Your task to perform on an android device: change keyboard looks Image 0: 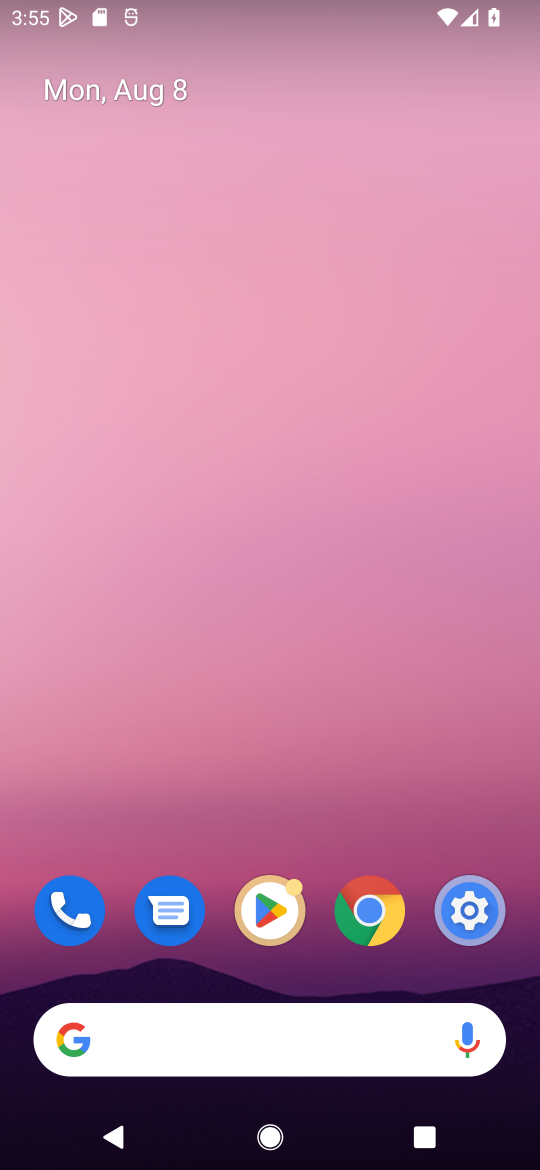
Step 0: click (453, 916)
Your task to perform on an android device: change keyboard looks Image 1: 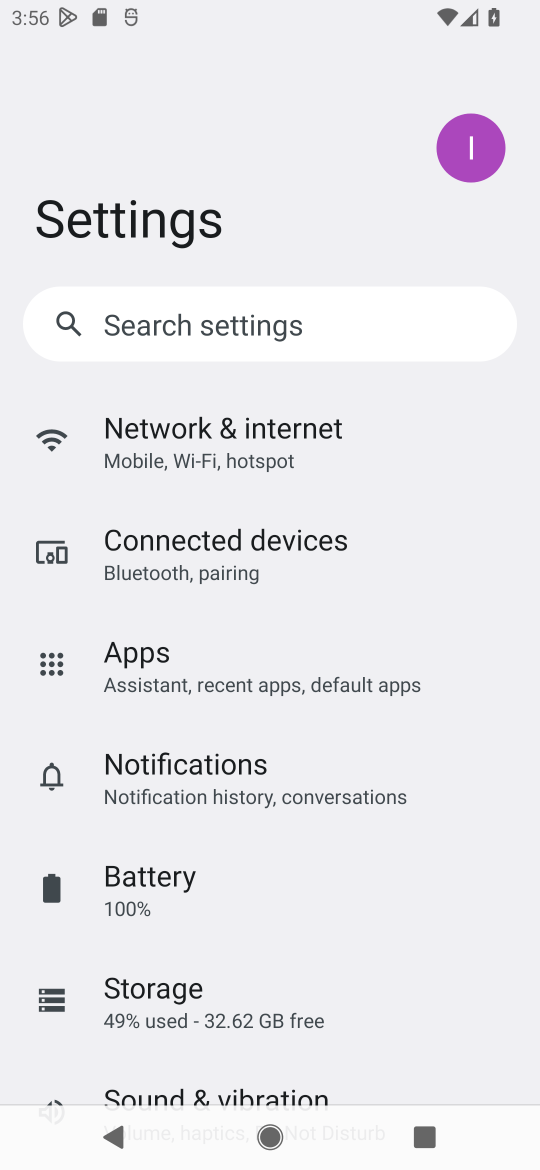
Step 1: drag from (474, 926) to (427, 313)
Your task to perform on an android device: change keyboard looks Image 2: 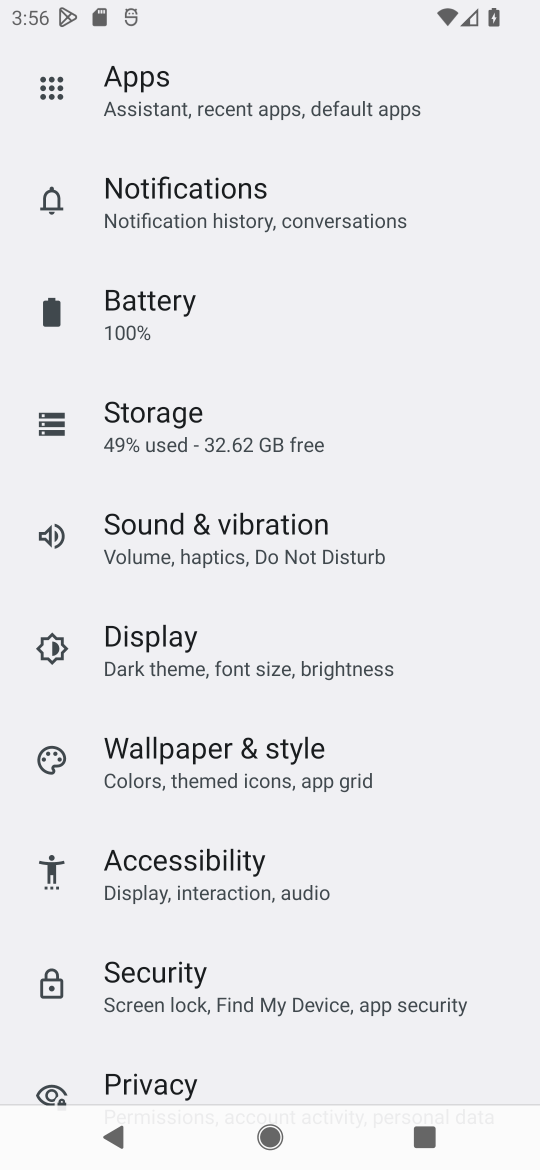
Step 2: drag from (441, 919) to (411, 633)
Your task to perform on an android device: change keyboard looks Image 3: 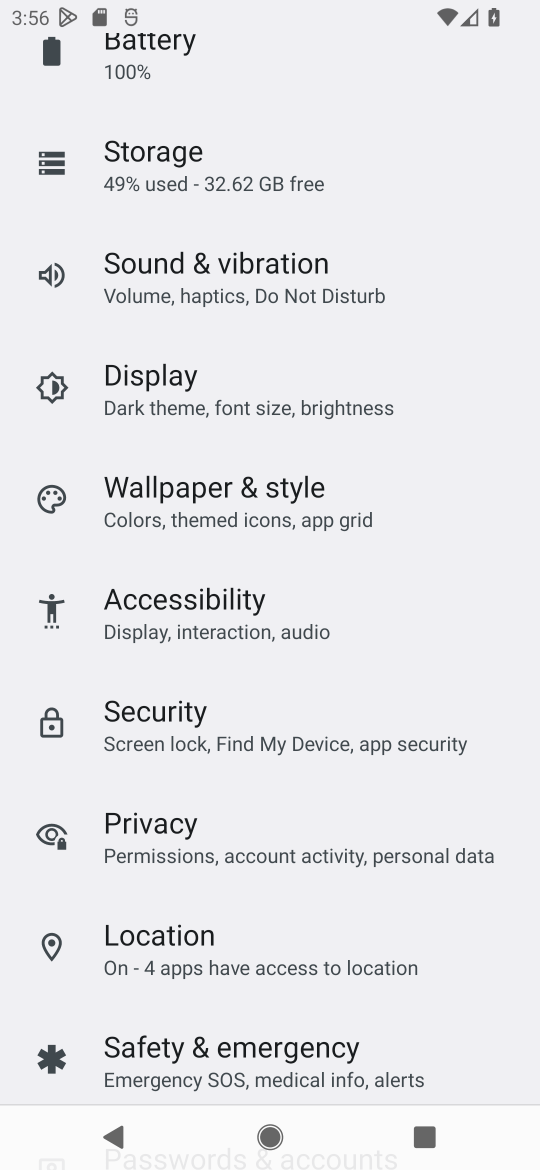
Step 3: drag from (492, 257) to (380, 941)
Your task to perform on an android device: change keyboard looks Image 4: 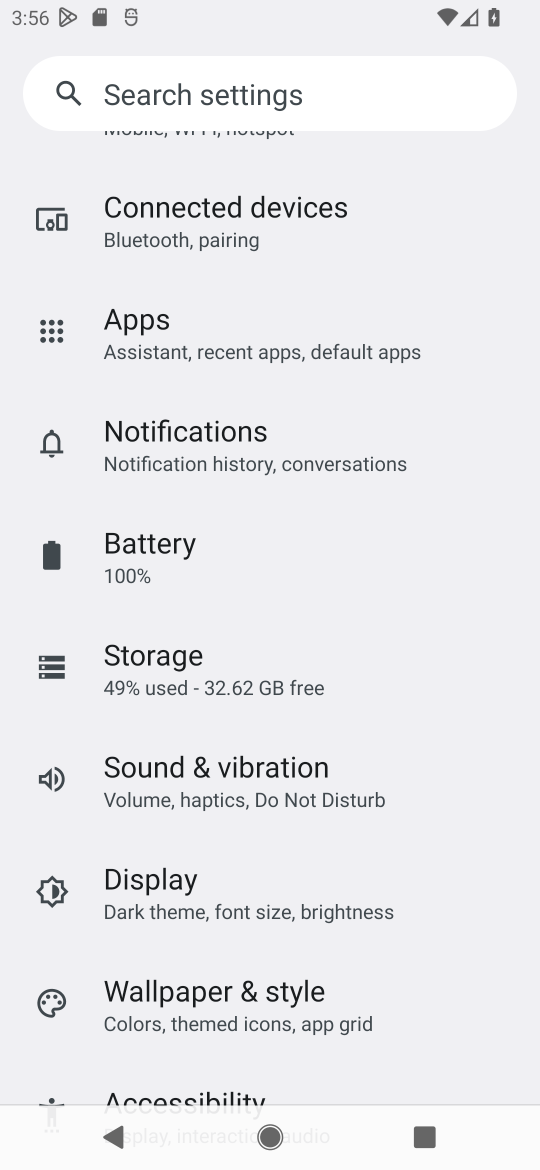
Step 4: click (196, 99)
Your task to perform on an android device: change keyboard looks Image 5: 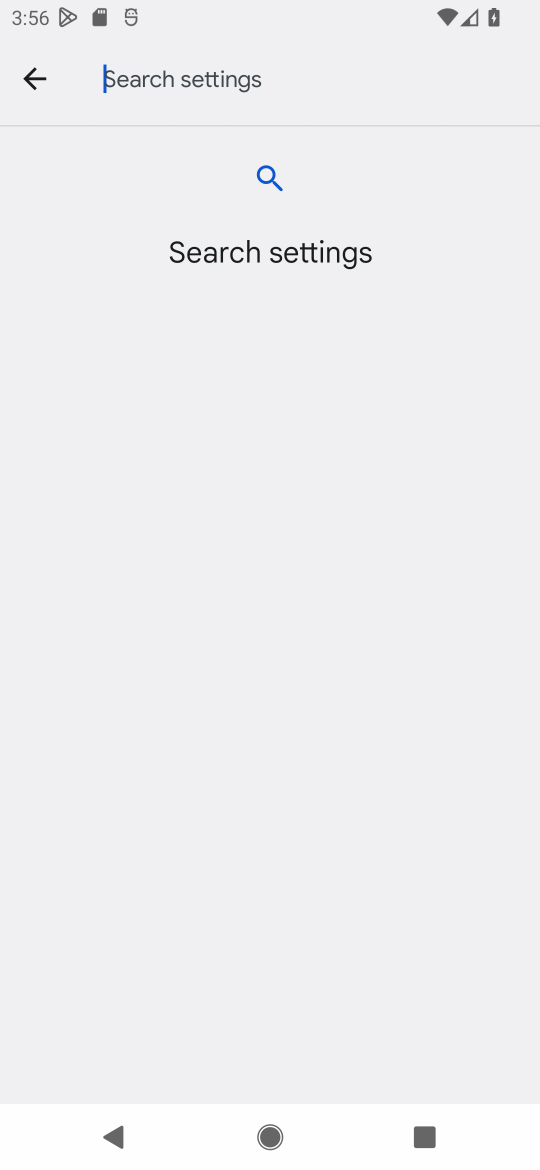
Step 5: type "keyboard"
Your task to perform on an android device: change keyboard looks Image 6: 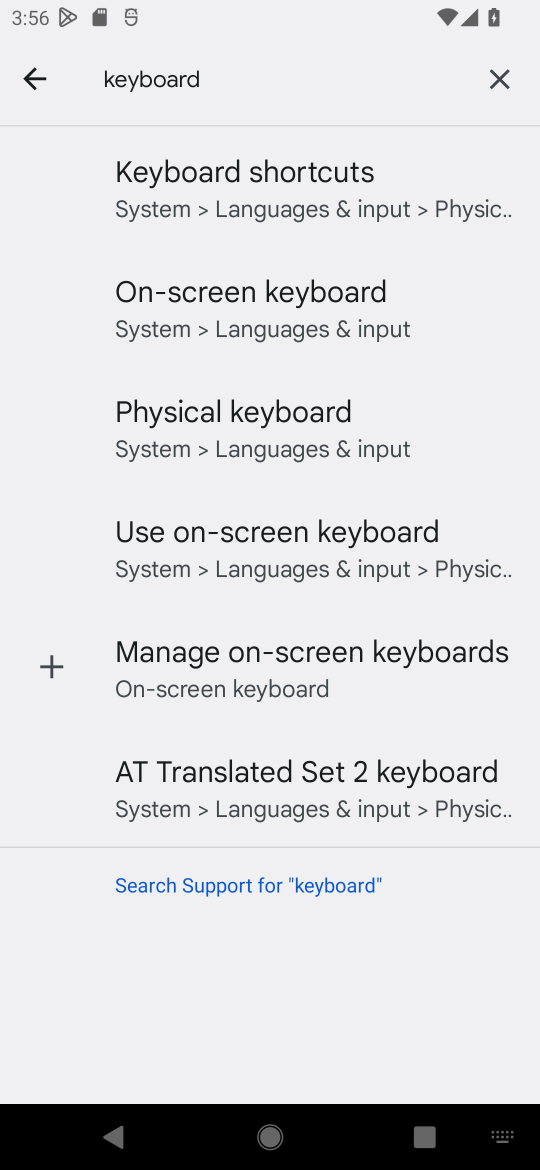
Step 6: click (189, 175)
Your task to perform on an android device: change keyboard looks Image 7: 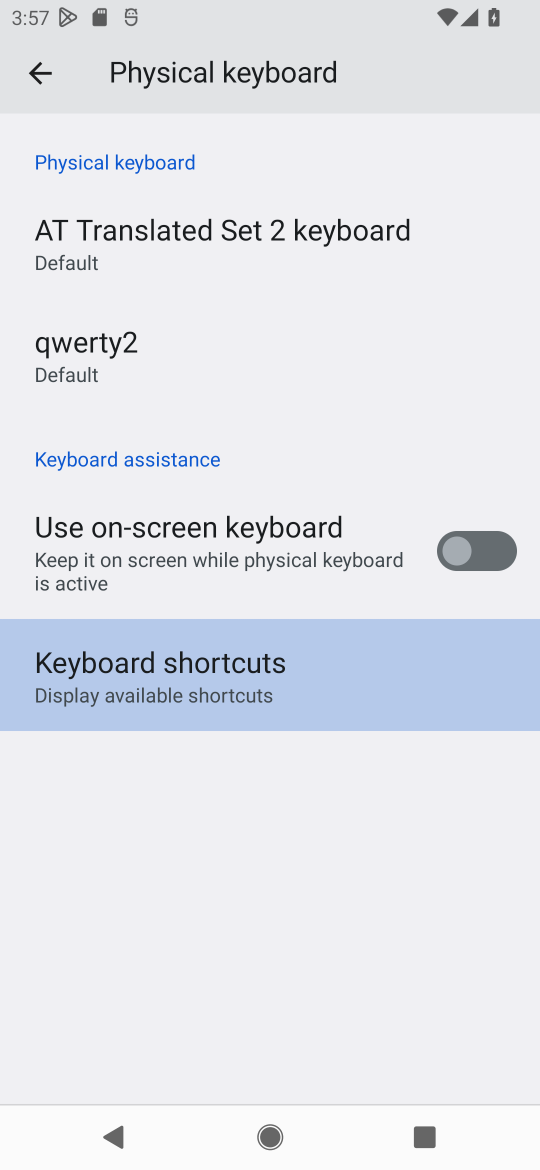
Step 7: click (103, 345)
Your task to perform on an android device: change keyboard looks Image 8: 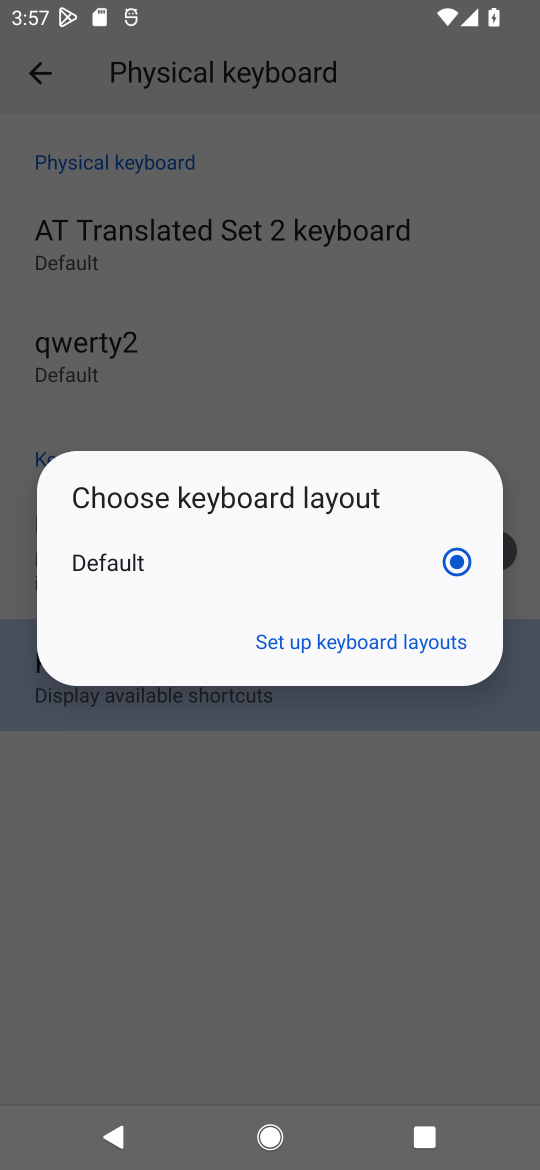
Step 8: click (308, 644)
Your task to perform on an android device: change keyboard looks Image 9: 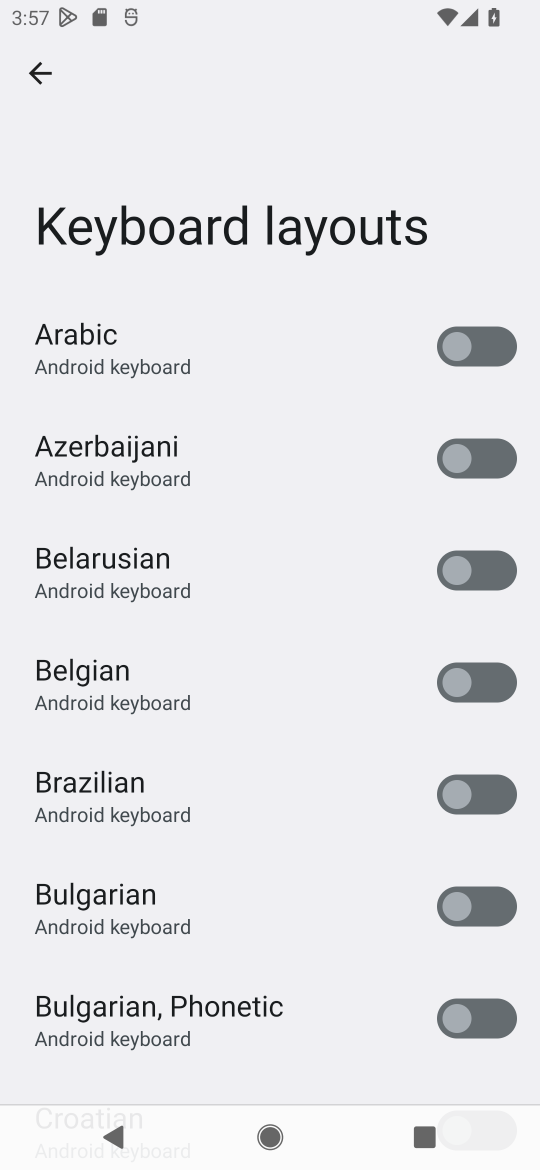
Step 9: click (460, 355)
Your task to perform on an android device: change keyboard looks Image 10: 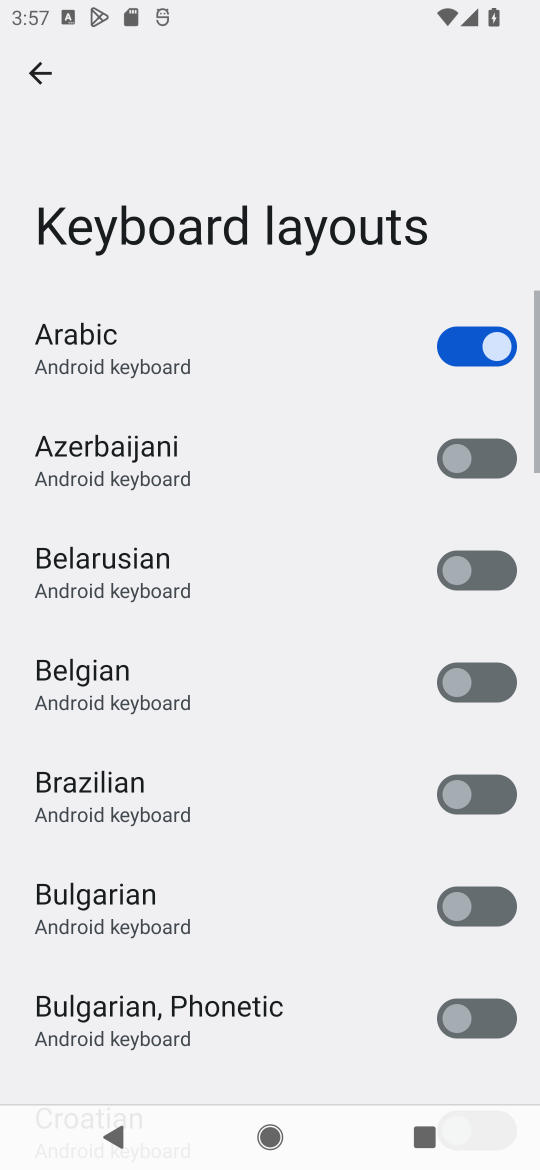
Step 10: click (37, 68)
Your task to perform on an android device: change keyboard looks Image 11: 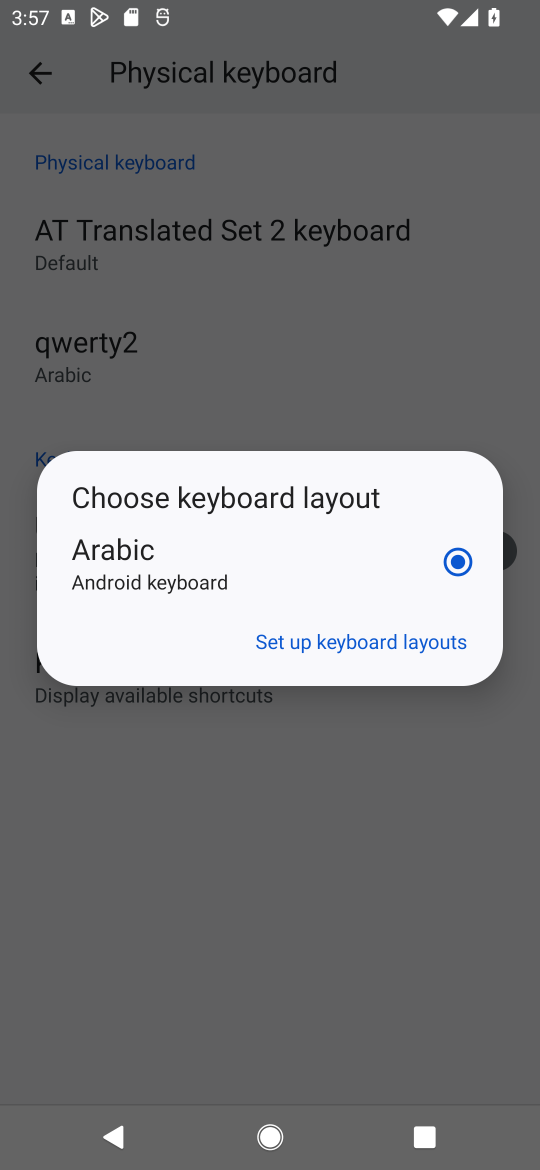
Step 11: click (472, 387)
Your task to perform on an android device: change keyboard looks Image 12: 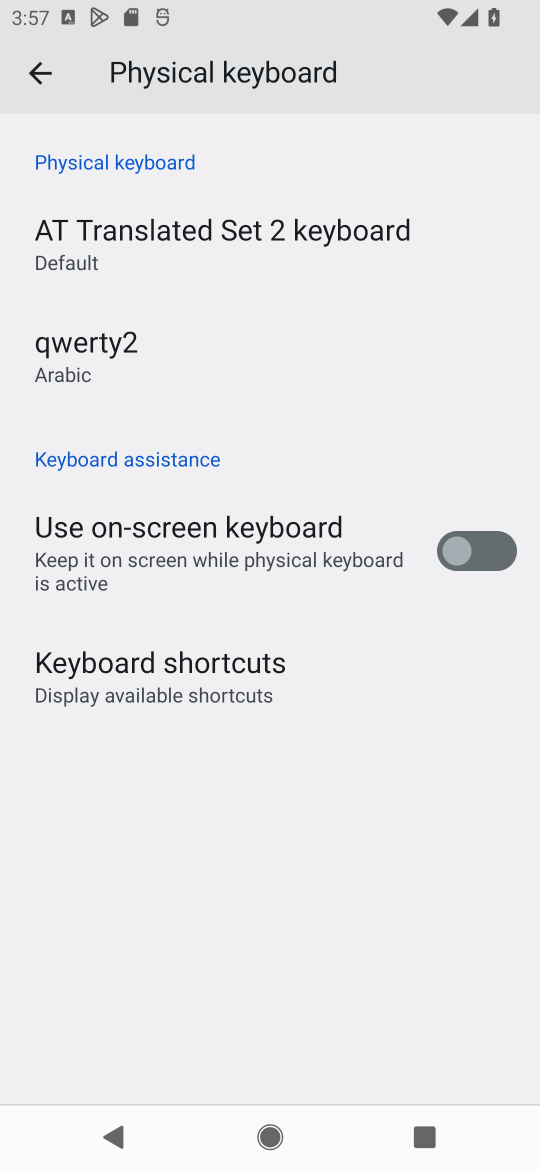
Step 12: click (472, 387)
Your task to perform on an android device: change keyboard looks Image 13: 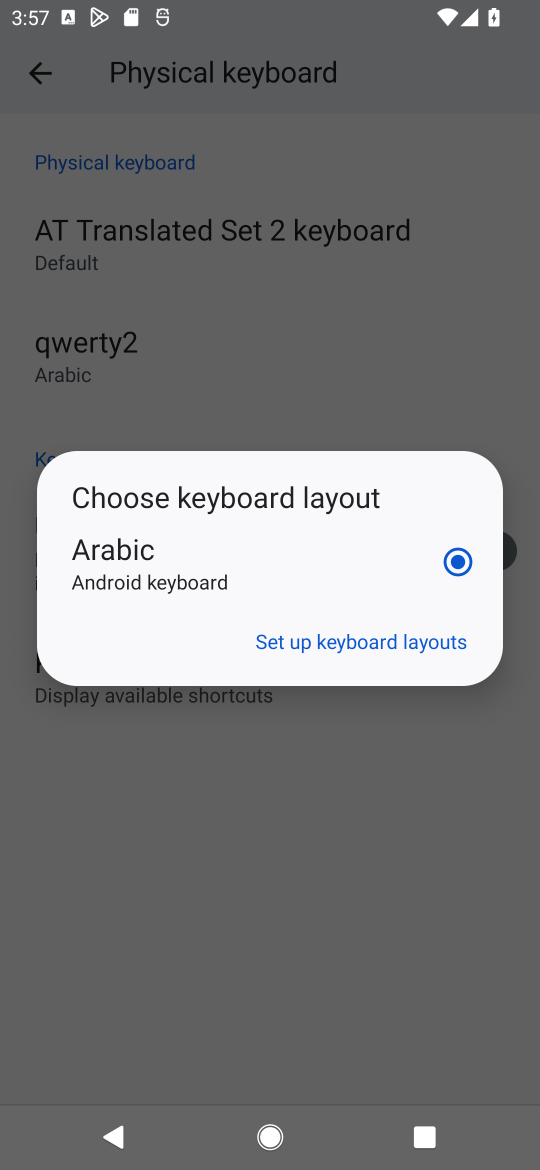
Step 13: click (311, 312)
Your task to perform on an android device: change keyboard looks Image 14: 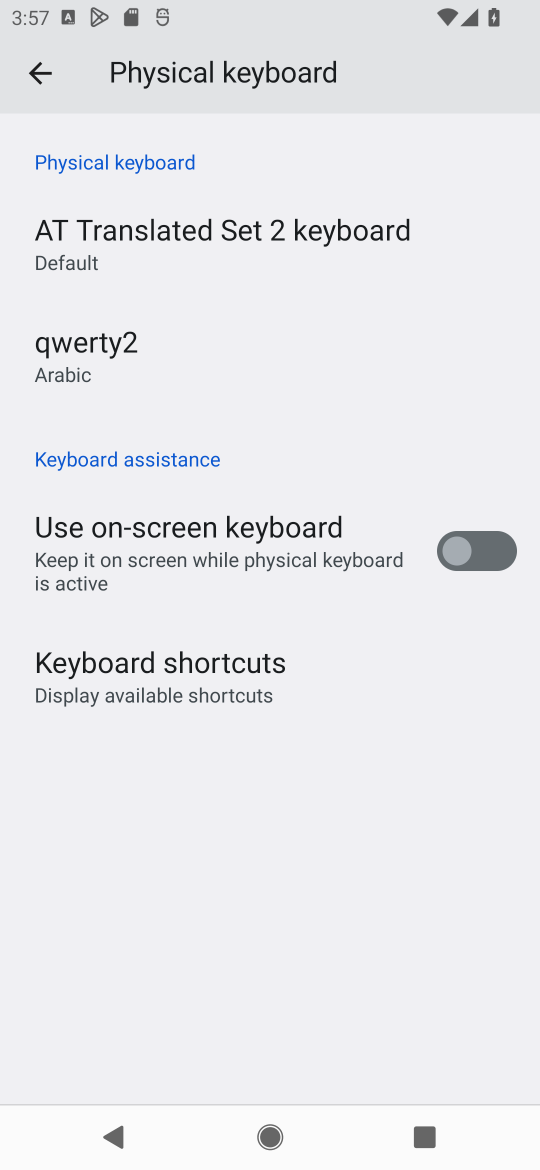
Step 14: task complete